Your task to perform on an android device: View the shopping cart on newegg. Add "beats solo 3" to the cart on newegg Image 0: 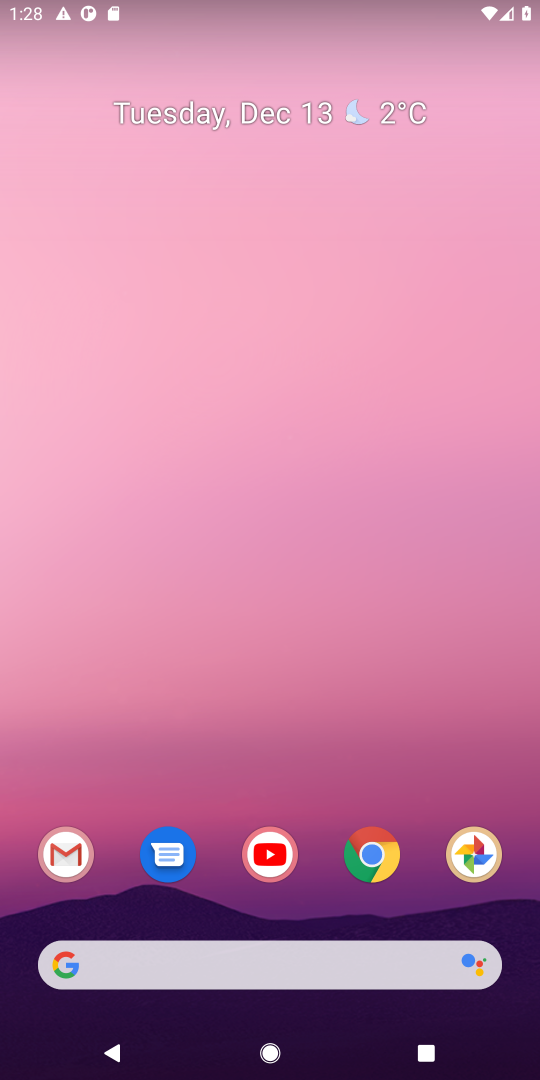
Step 0: click (286, 971)
Your task to perform on an android device: View the shopping cart on newegg. Add "beats solo 3" to the cart on newegg Image 1: 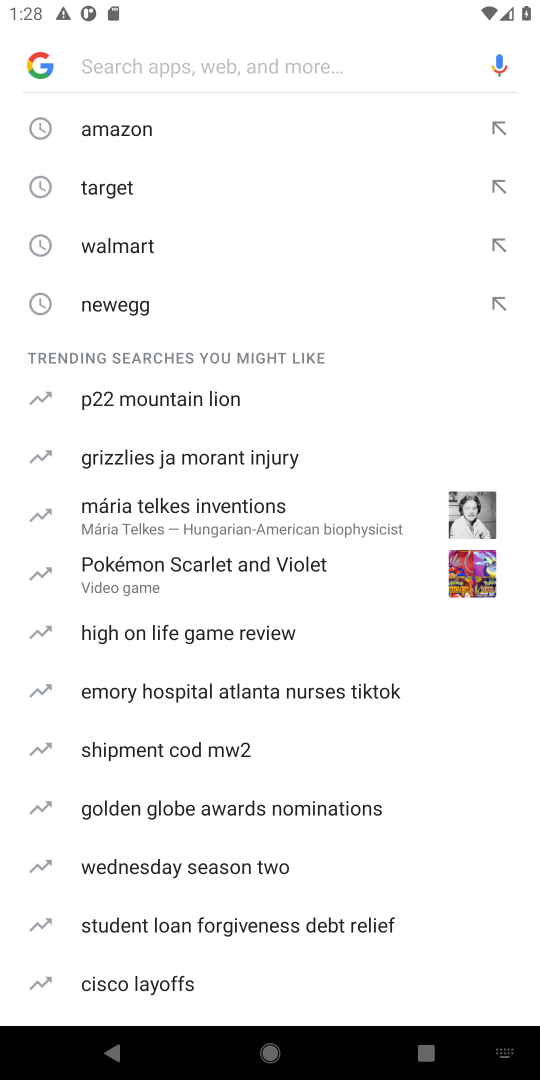
Step 1: click (235, 313)
Your task to perform on an android device: View the shopping cart on newegg. Add "beats solo 3" to the cart on newegg Image 2: 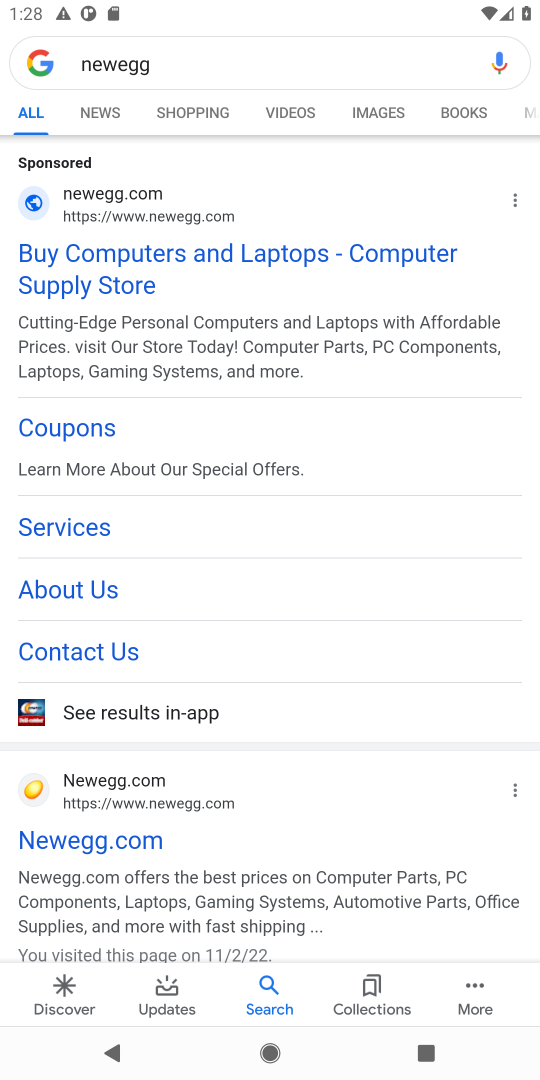
Step 2: click (123, 269)
Your task to perform on an android device: View the shopping cart on newegg. Add "beats solo 3" to the cart on newegg Image 3: 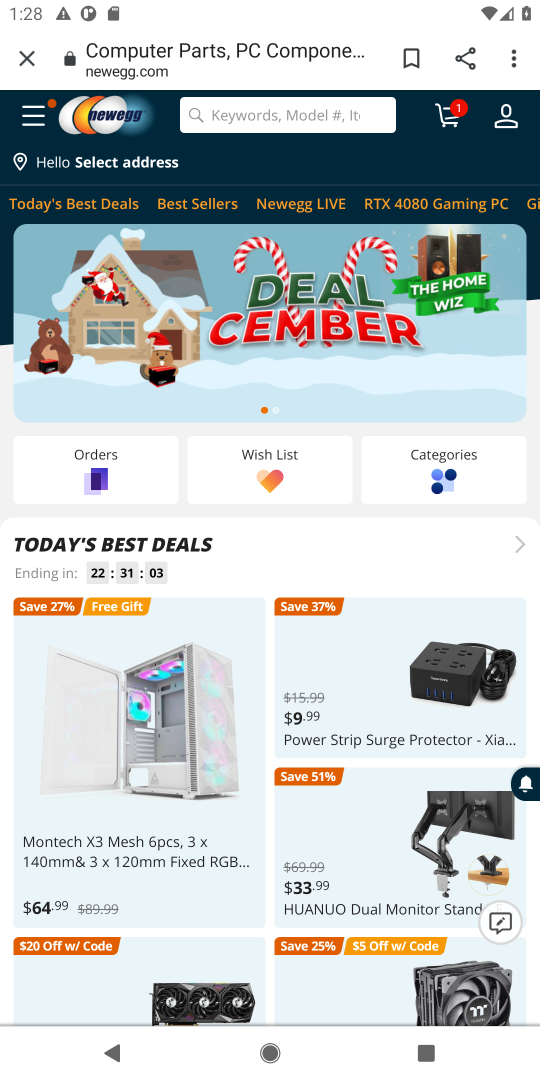
Step 3: click (252, 121)
Your task to perform on an android device: View the shopping cart on newegg. Add "beats solo 3" to the cart on newegg Image 4: 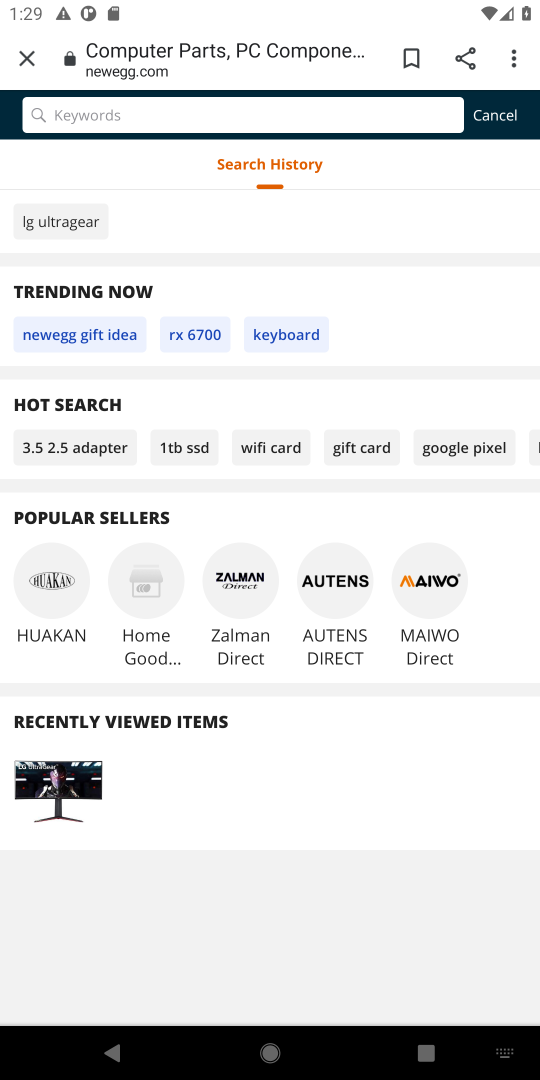
Step 4: type "beats solo 3"
Your task to perform on an android device: View the shopping cart on newegg. Add "beats solo 3" to the cart on newegg Image 5: 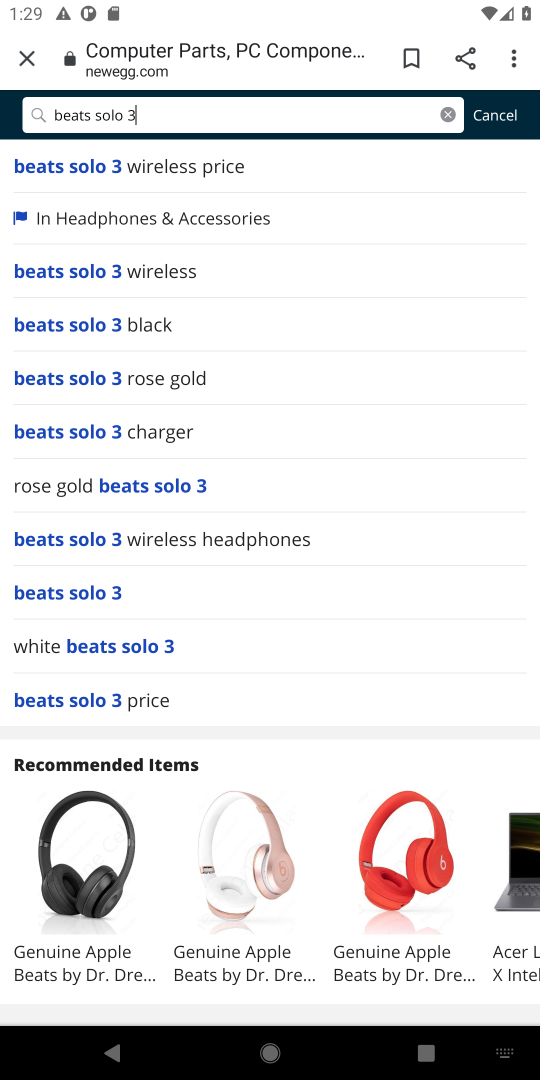
Step 5: click (117, 169)
Your task to perform on an android device: View the shopping cart on newegg. Add "beats solo 3" to the cart on newegg Image 6: 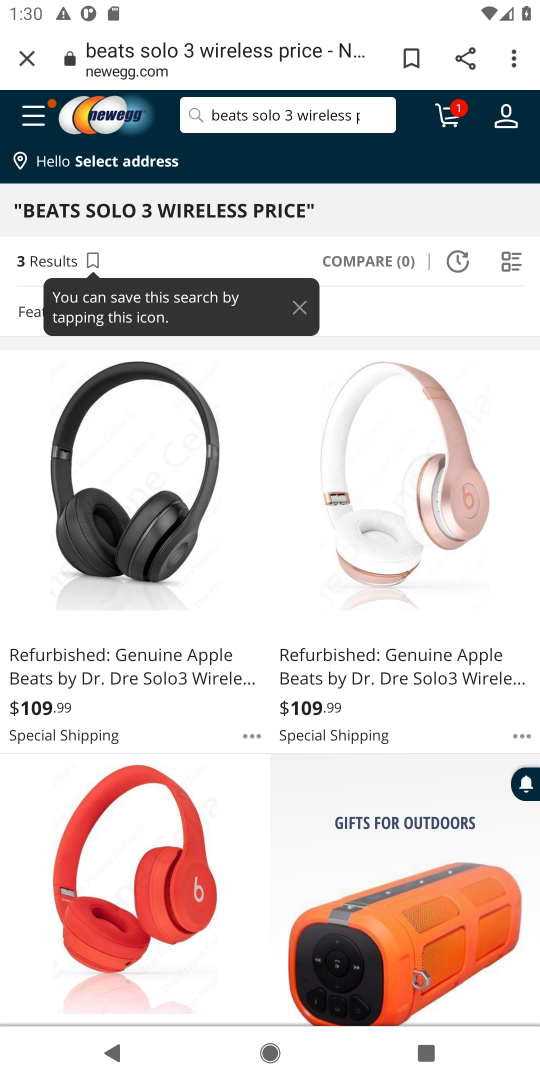
Step 6: click (236, 571)
Your task to perform on an android device: View the shopping cart on newegg. Add "beats solo 3" to the cart on newegg Image 7: 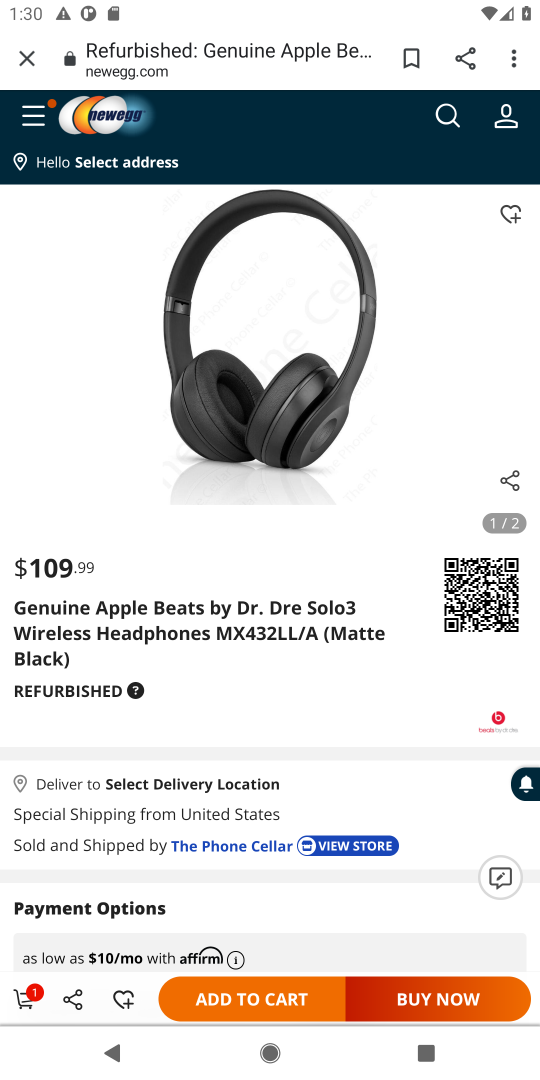
Step 7: click (273, 1021)
Your task to perform on an android device: View the shopping cart on newegg. Add "beats solo 3" to the cart on newegg Image 8: 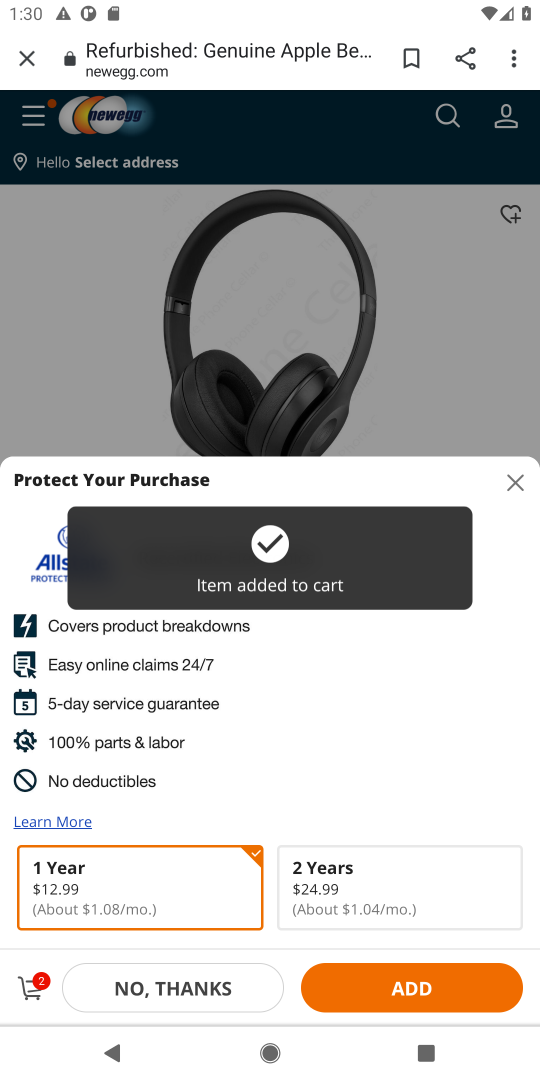
Step 8: task complete